Your task to perform on an android device: turn notification dots off Image 0: 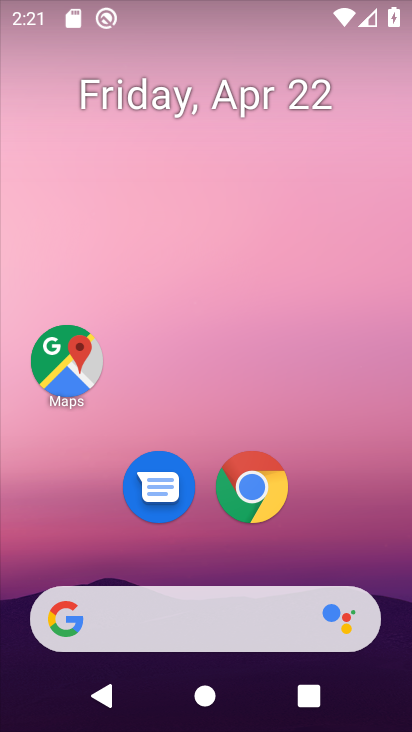
Step 0: drag from (217, 559) to (230, 250)
Your task to perform on an android device: turn notification dots off Image 1: 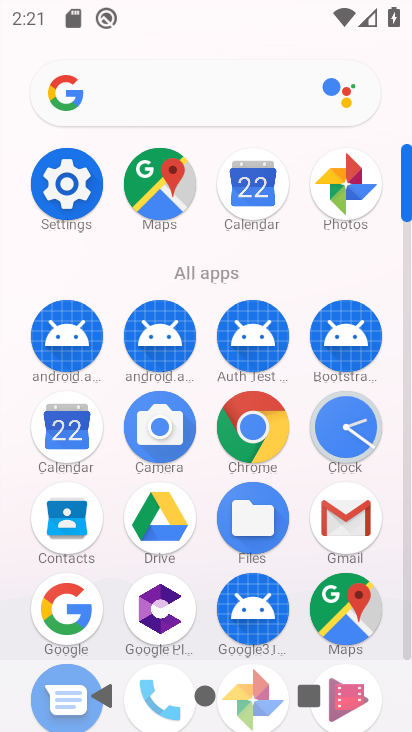
Step 1: click (58, 189)
Your task to perform on an android device: turn notification dots off Image 2: 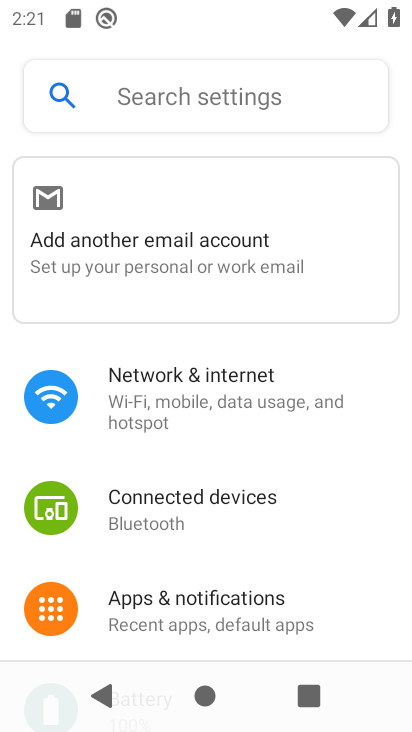
Step 2: drag from (220, 541) to (226, 303)
Your task to perform on an android device: turn notification dots off Image 3: 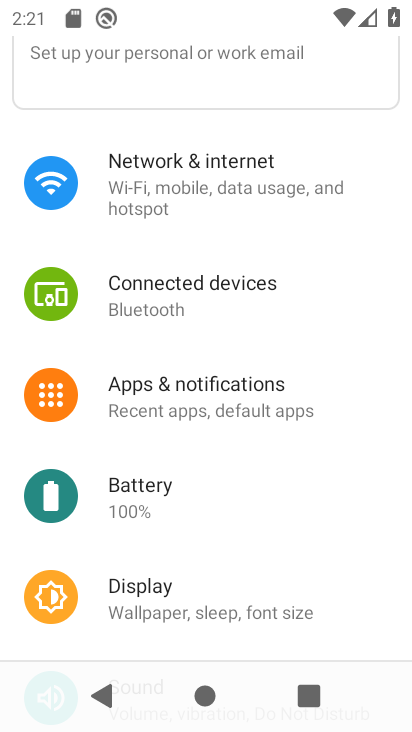
Step 3: click (231, 405)
Your task to perform on an android device: turn notification dots off Image 4: 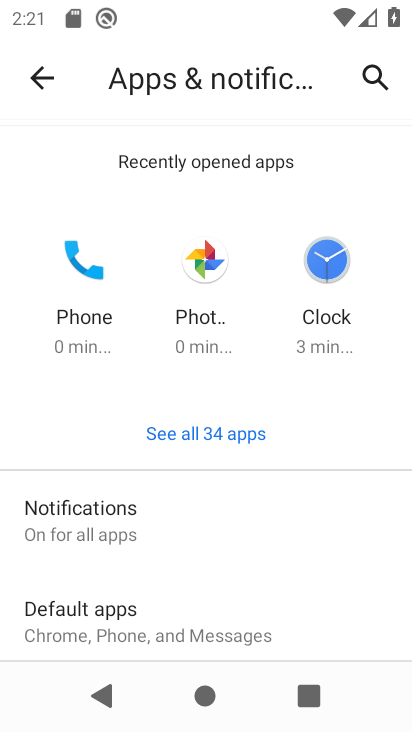
Step 4: drag from (130, 547) to (174, 397)
Your task to perform on an android device: turn notification dots off Image 5: 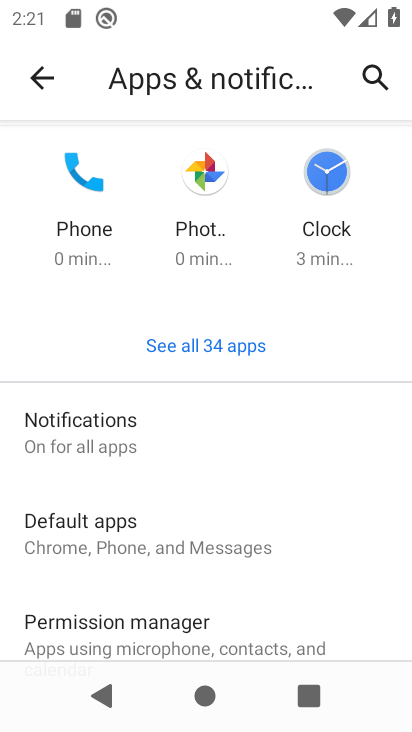
Step 5: click (181, 528)
Your task to perform on an android device: turn notification dots off Image 6: 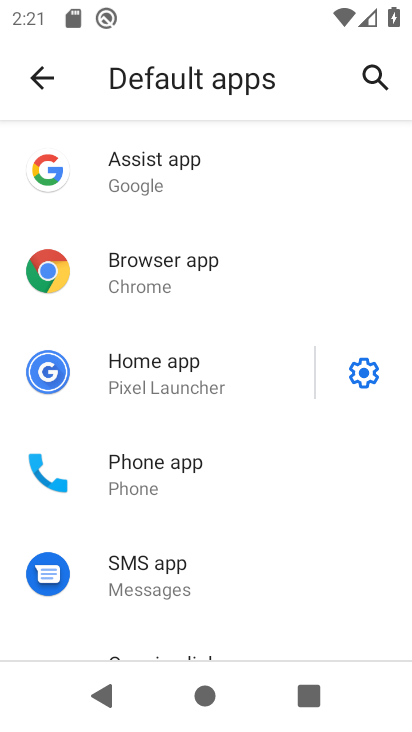
Step 6: drag from (237, 603) to (243, 264)
Your task to perform on an android device: turn notification dots off Image 7: 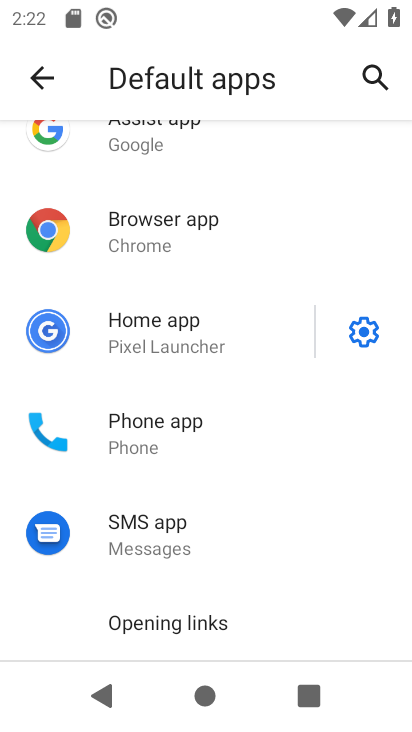
Step 7: drag from (233, 582) to (239, 262)
Your task to perform on an android device: turn notification dots off Image 8: 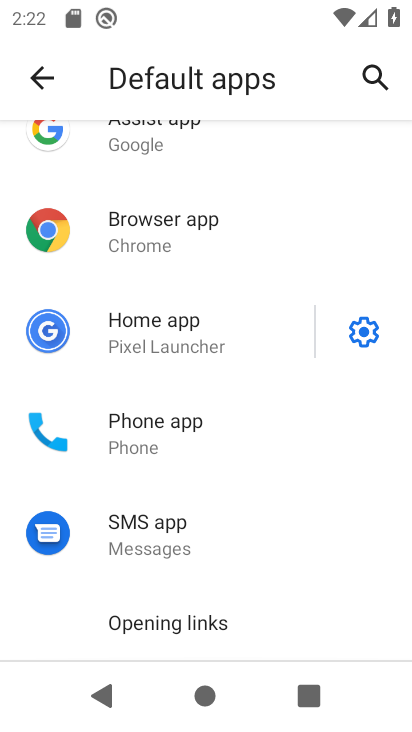
Step 8: drag from (232, 236) to (269, 727)
Your task to perform on an android device: turn notification dots off Image 9: 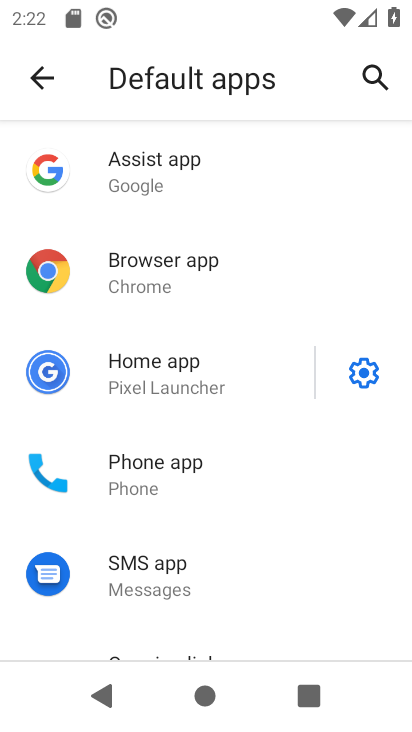
Step 9: click (41, 84)
Your task to perform on an android device: turn notification dots off Image 10: 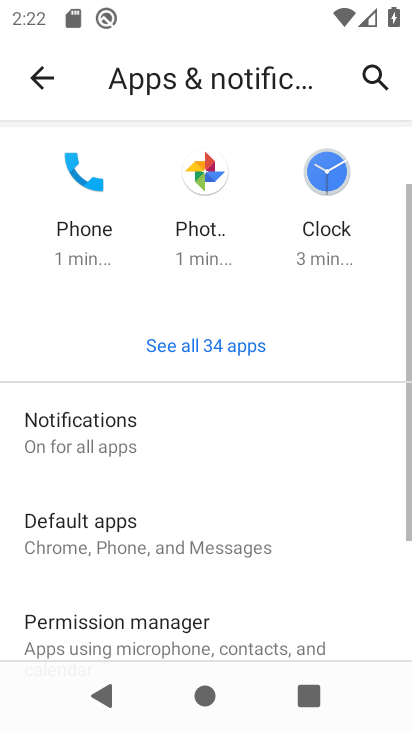
Step 10: click (158, 435)
Your task to perform on an android device: turn notification dots off Image 11: 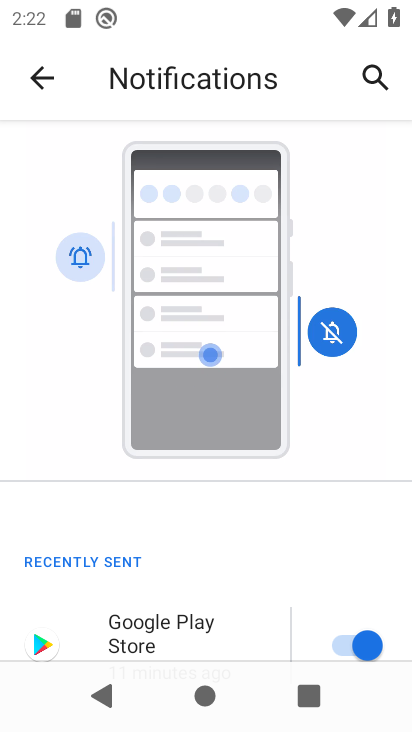
Step 11: drag from (170, 504) to (143, 40)
Your task to perform on an android device: turn notification dots off Image 12: 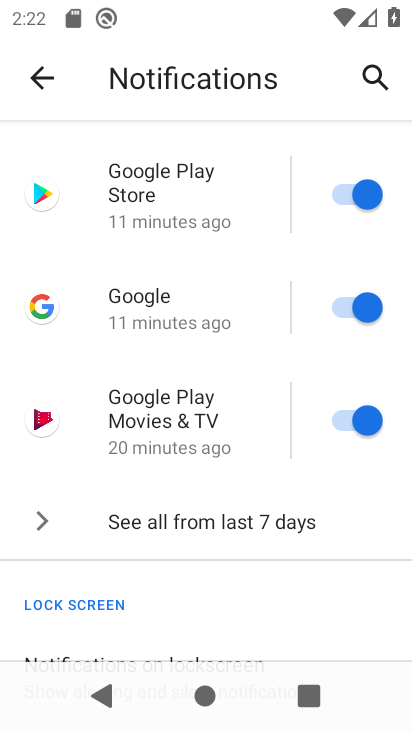
Step 12: drag from (175, 410) to (171, 145)
Your task to perform on an android device: turn notification dots off Image 13: 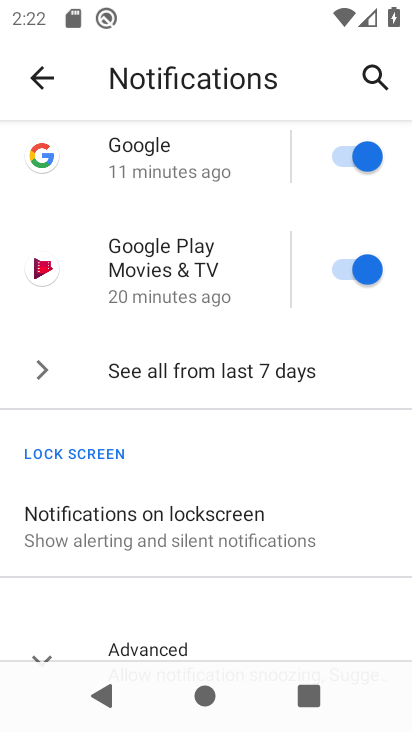
Step 13: drag from (172, 643) to (173, 203)
Your task to perform on an android device: turn notification dots off Image 14: 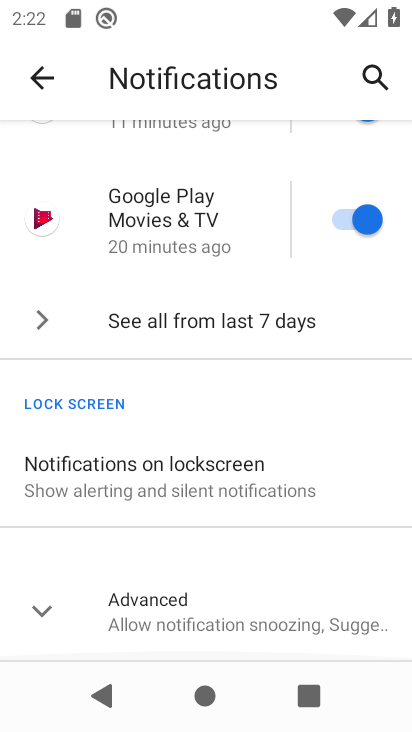
Step 14: click (185, 618)
Your task to perform on an android device: turn notification dots off Image 15: 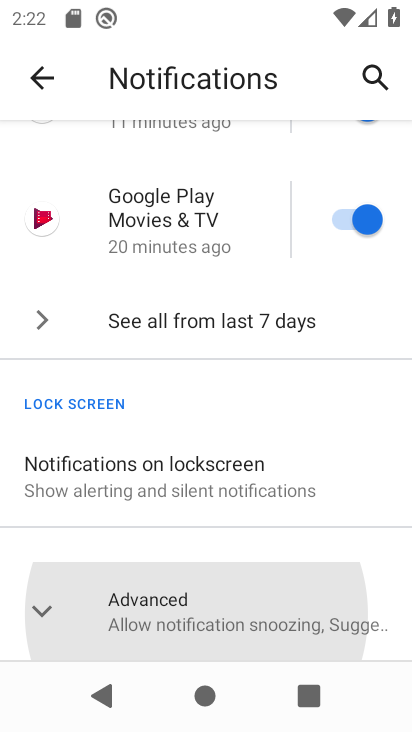
Step 15: task complete